Your task to perform on an android device: Open network settings Image 0: 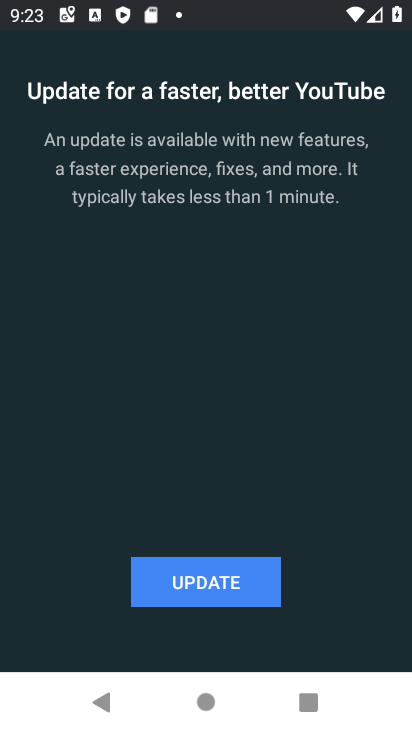
Step 0: press home button
Your task to perform on an android device: Open network settings Image 1: 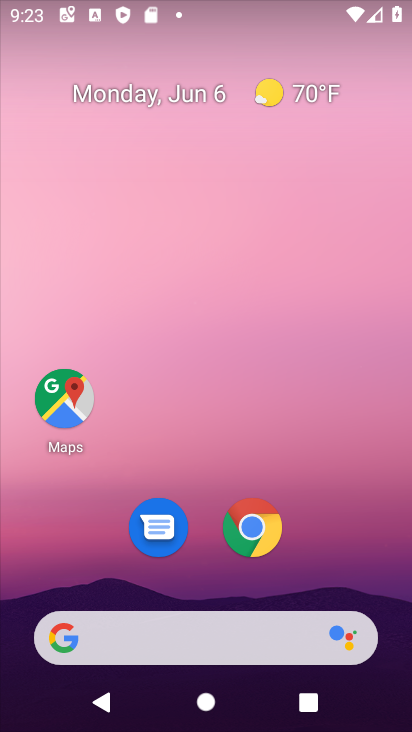
Step 1: drag from (234, 547) to (233, 429)
Your task to perform on an android device: Open network settings Image 2: 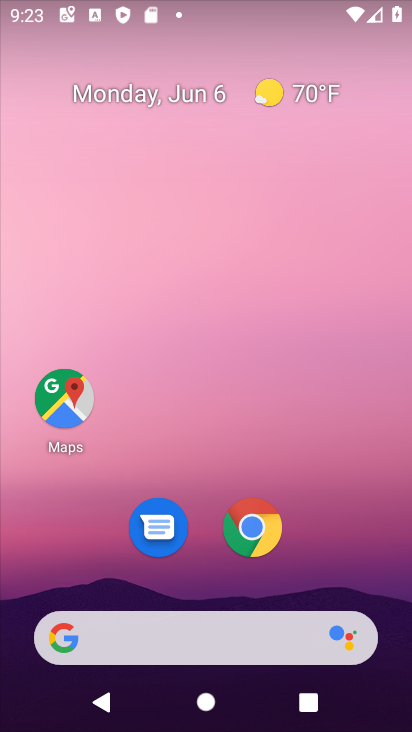
Step 2: drag from (197, 622) to (186, 266)
Your task to perform on an android device: Open network settings Image 3: 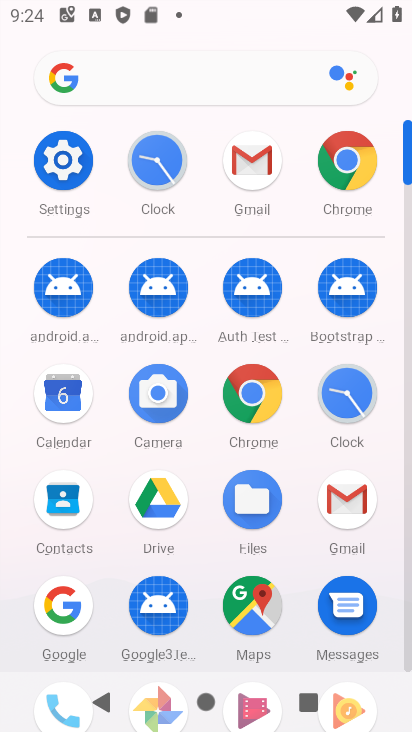
Step 3: click (79, 191)
Your task to perform on an android device: Open network settings Image 4: 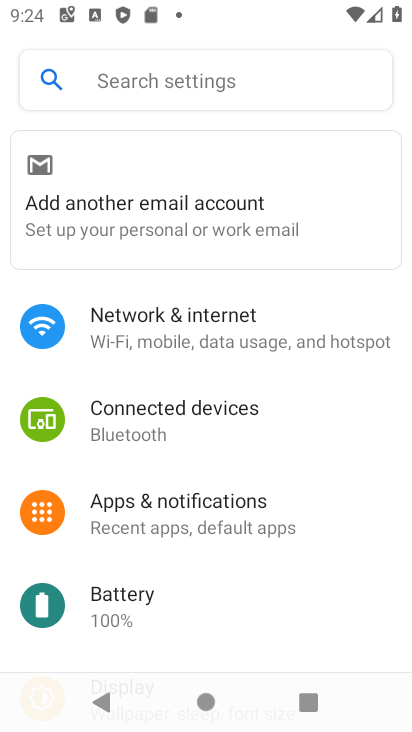
Step 4: click (231, 336)
Your task to perform on an android device: Open network settings Image 5: 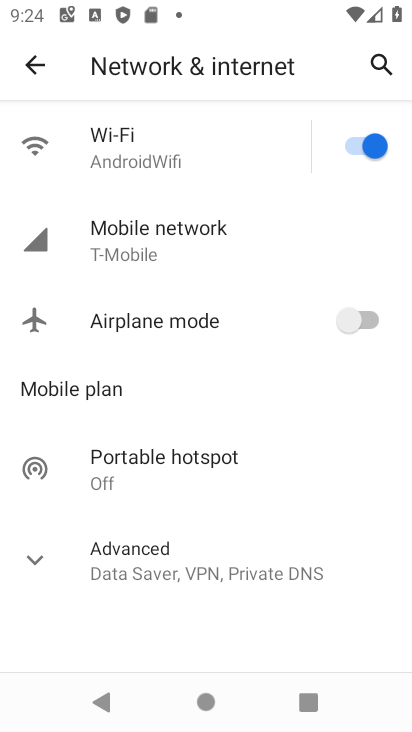
Step 5: click (168, 243)
Your task to perform on an android device: Open network settings Image 6: 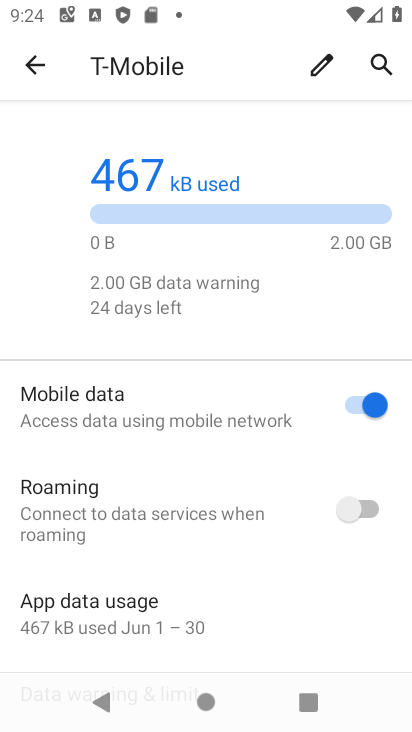
Step 6: task complete